Your task to perform on an android device: change the clock display to analog Image 0: 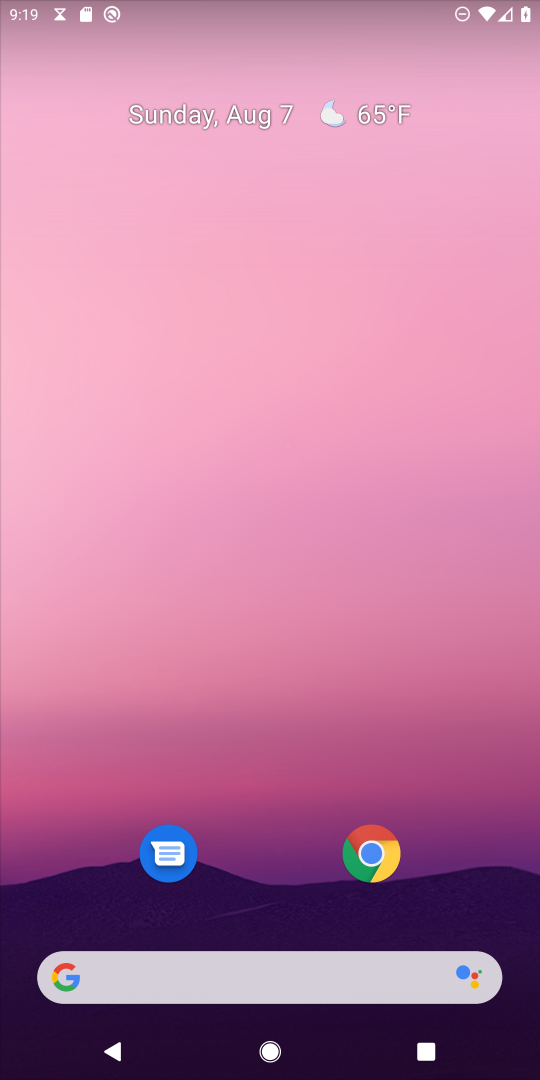
Step 0: drag from (289, 929) to (289, 401)
Your task to perform on an android device: change the clock display to analog Image 1: 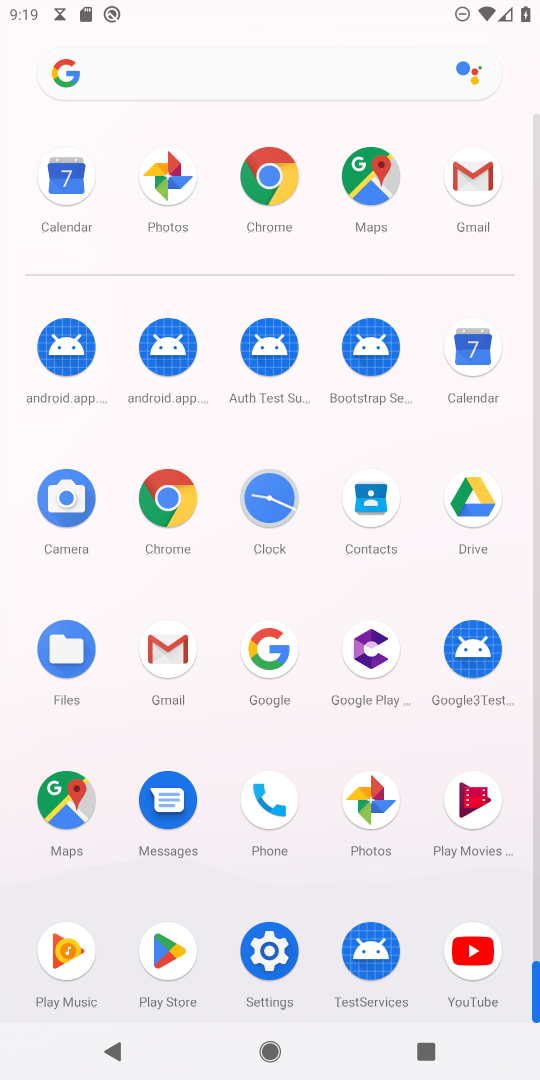
Step 1: click (276, 494)
Your task to perform on an android device: change the clock display to analog Image 2: 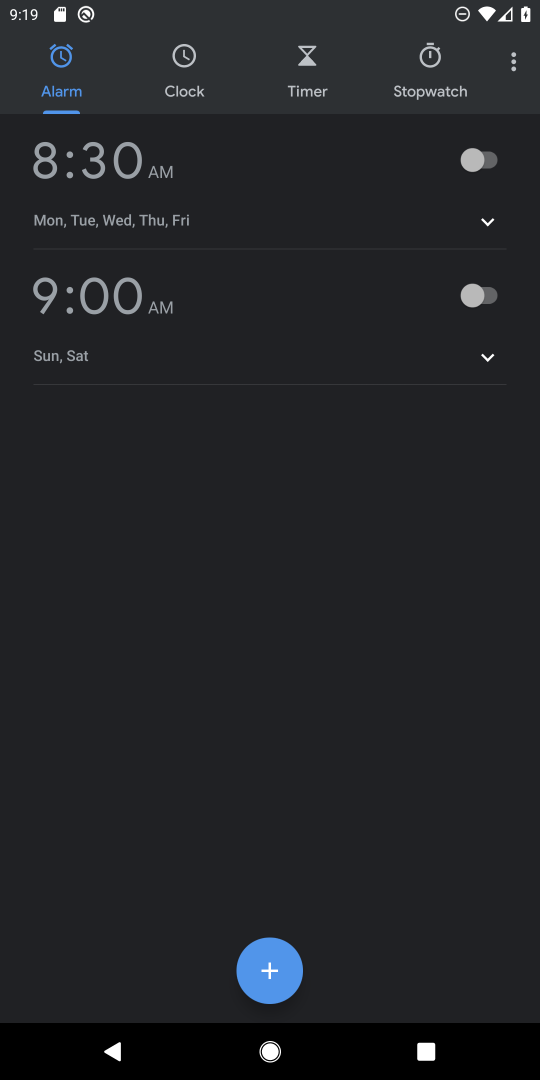
Step 2: click (526, 66)
Your task to perform on an android device: change the clock display to analog Image 3: 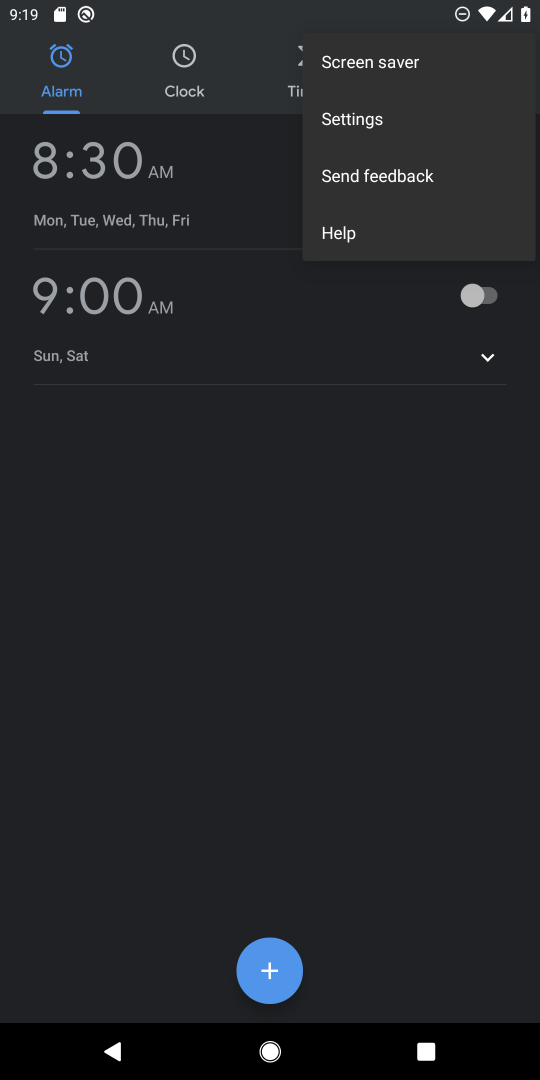
Step 3: click (363, 123)
Your task to perform on an android device: change the clock display to analog Image 4: 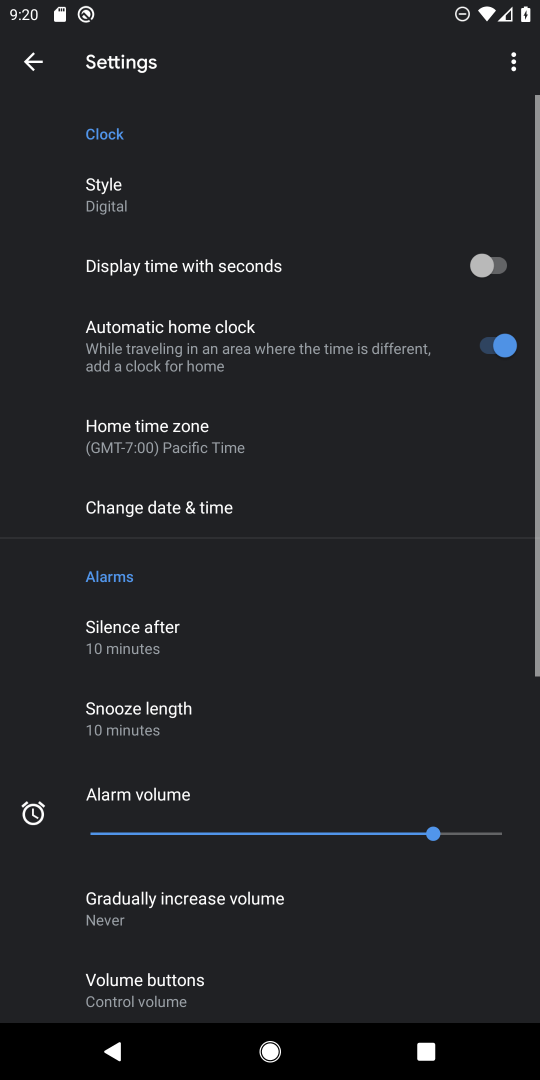
Step 4: click (192, 196)
Your task to perform on an android device: change the clock display to analog Image 5: 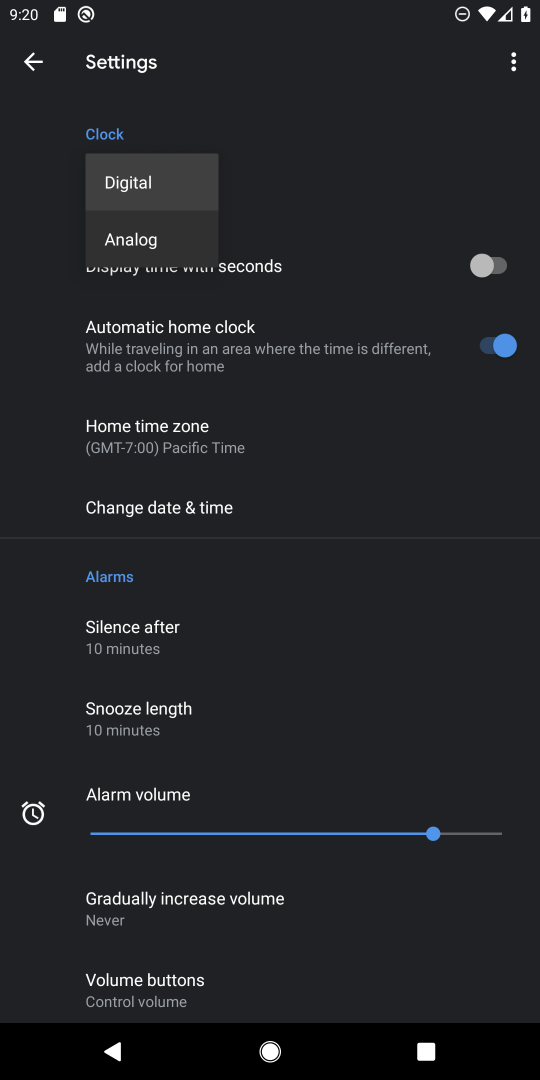
Step 5: click (122, 241)
Your task to perform on an android device: change the clock display to analog Image 6: 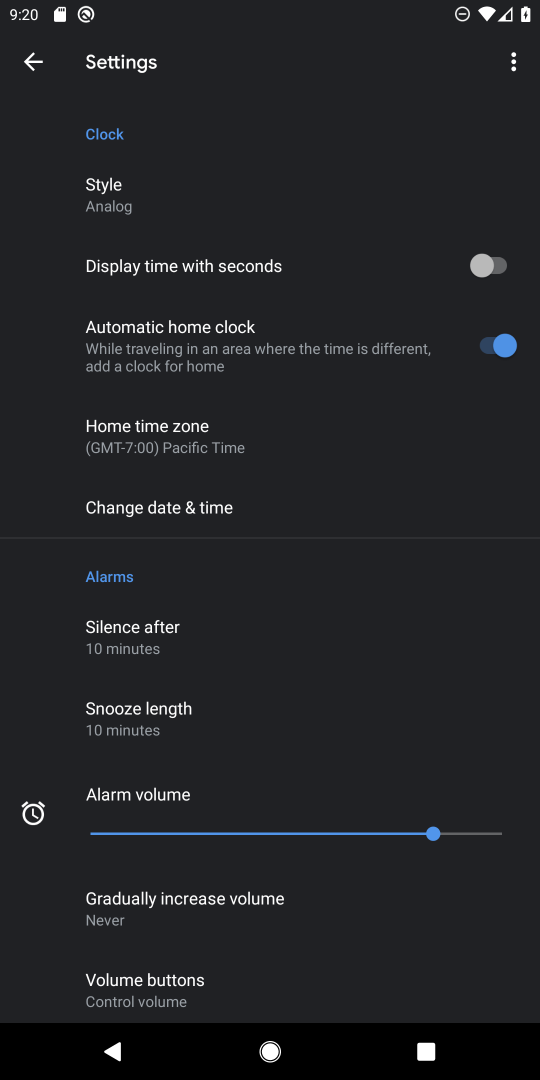
Step 6: task complete